Your task to perform on an android device: Clear the cart on amazon. Search for bose quietcomfort 35 on amazon, select the first entry, and add it to the cart. Image 0: 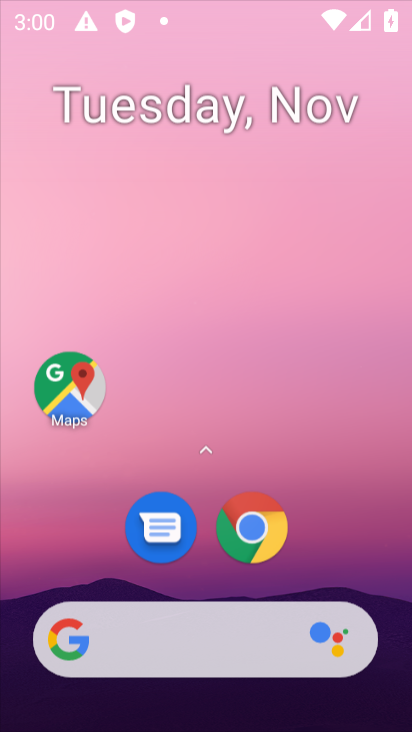
Step 0: press home button
Your task to perform on an android device: Clear the cart on amazon. Search for bose quietcomfort 35 on amazon, select the first entry, and add it to the cart. Image 1: 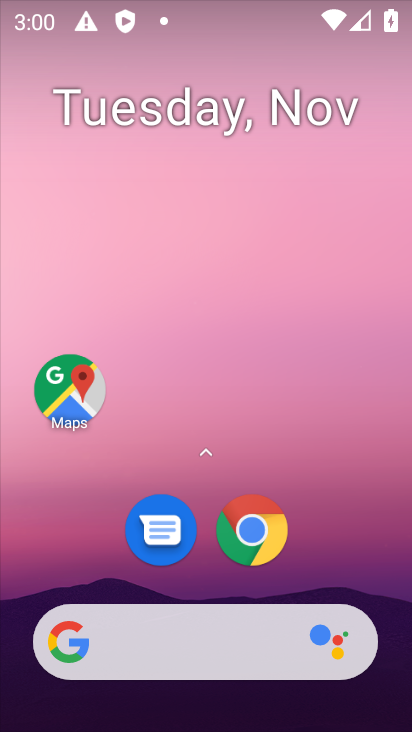
Step 1: drag from (234, 701) to (265, 134)
Your task to perform on an android device: Clear the cart on amazon. Search for bose quietcomfort 35 on amazon, select the first entry, and add it to the cart. Image 2: 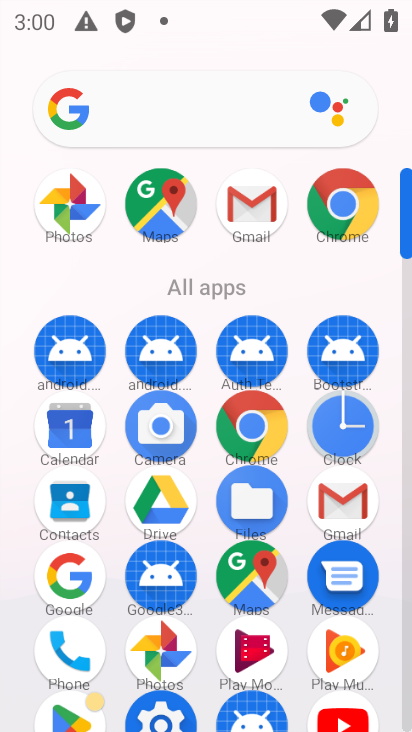
Step 2: click (261, 420)
Your task to perform on an android device: Clear the cart on amazon. Search for bose quietcomfort 35 on amazon, select the first entry, and add it to the cart. Image 3: 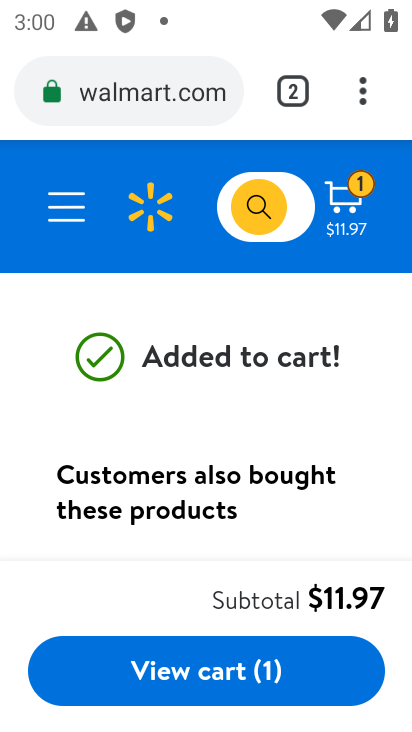
Step 3: click (172, 88)
Your task to perform on an android device: Clear the cart on amazon. Search for bose quietcomfort 35 on amazon, select the first entry, and add it to the cart. Image 4: 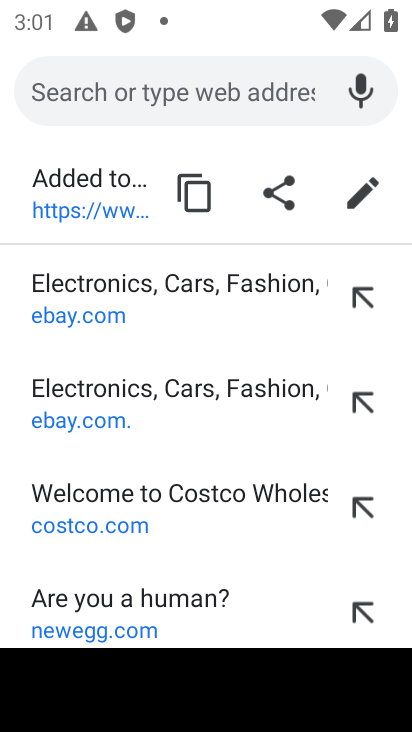
Step 4: type "amazon"
Your task to perform on an android device: Clear the cart on amazon. Search for bose quietcomfort 35 on amazon, select the first entry, and add it to the cart. Image 5: 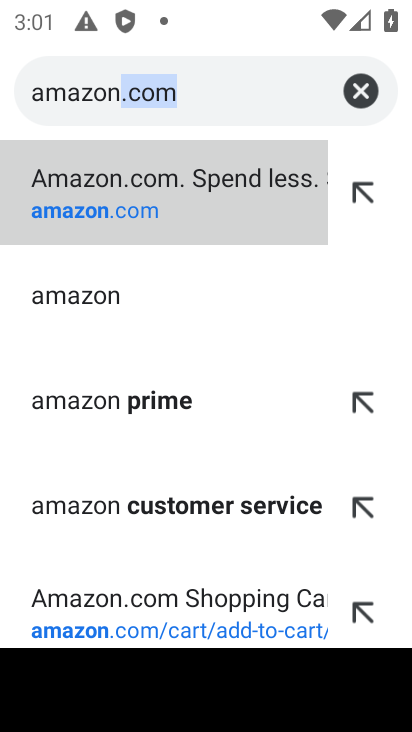
Step 5: click (66, 206)
Your task to perform on an android device: Clear the cart on amazon. Search for bose quietcomfort 35 on amazon, select the first entry, and add it to the cart. Image 6: 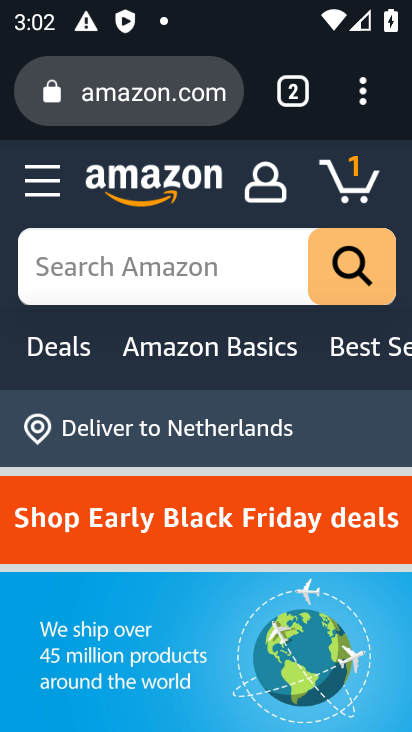
Step 6: click (112, 266)
Your task to perform on an android device: Clear the cart on amazon. Search for bose quietcomfort 35 on amazon, select the first entry, and add it to the cart. Image 7: 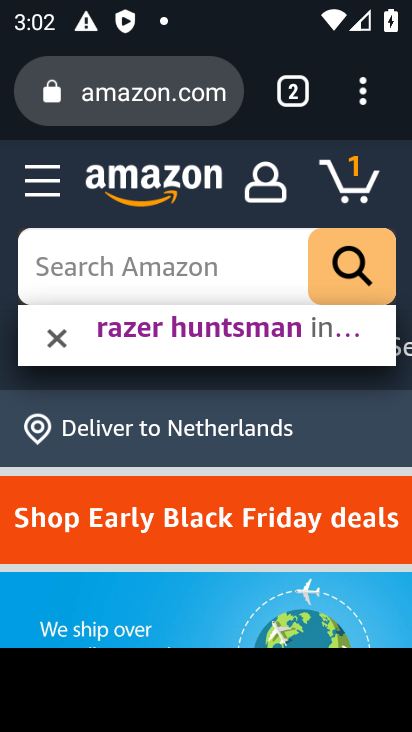
Step 7: type " bose quietcomfort 35"
Your task to perform on an android device: Clear the cart on amazon. Search for bose quietcomfort 35 on amazon, select the first entry, and add it to the cart. Image 8: 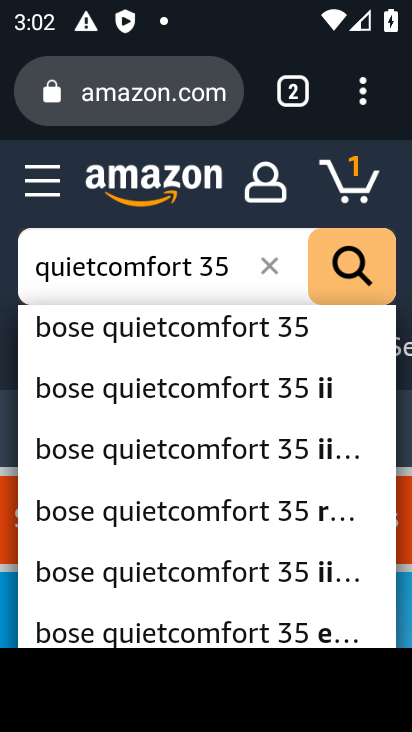
Step 8: click (191, 332)
Your task to perform on an android device: Clear the cart on amazon. Search for bose quietcomfort 35 on amazon, select the first entry, and add it to the cart. Image 9: 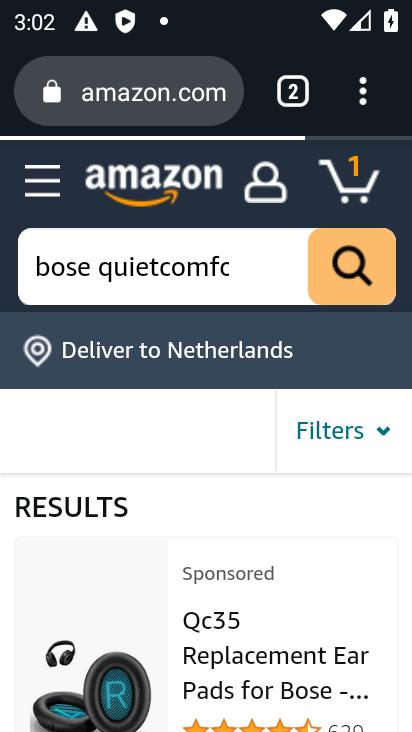
Step 9: drag from (162, 585) to (128, 285)
Your task to perform on an android device: Clear the cart on amazon. Search for bose quietcomfort 35 on amazon, select the first entry, and add it to the cart. Image 10: 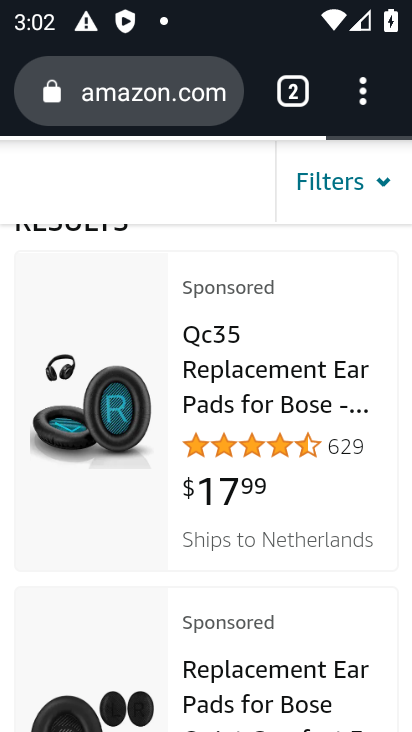
Step 10: click (140, 439)
Your task to perform on an android device: Clear the cart on amazon. Search for bose quietcomfort 35 on amazon, select the first entry, and add it to the cart. Image 11: 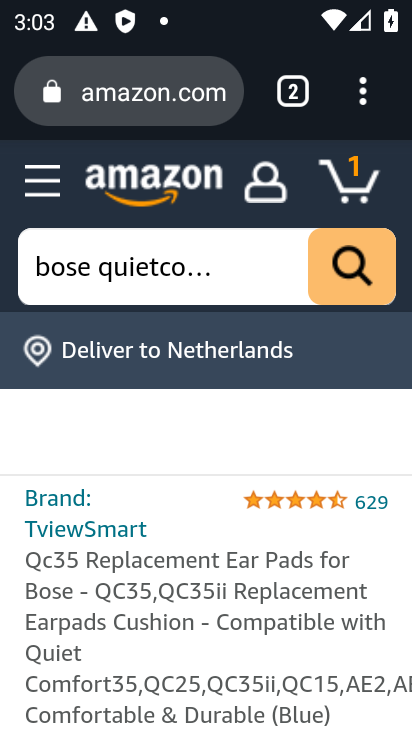
Step 11: drag from (195, 503) to (195, 156)
Your task to perform on an android device: Clear the cart on amazon. Search for bose quietcomfort 35 on amazon, select the first entry, and add it to the cart. Image 12: 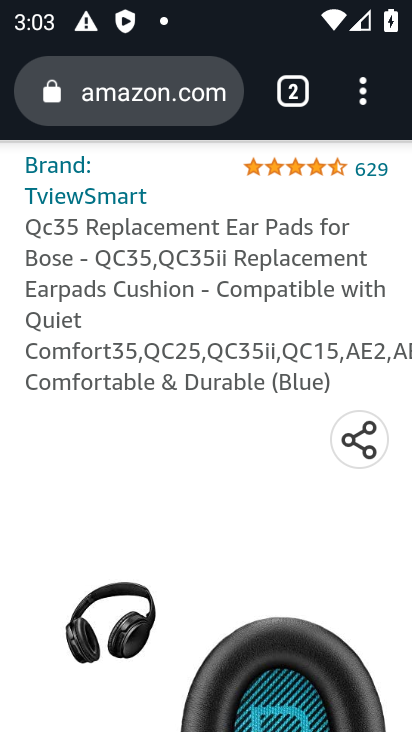
Step 12: drag from (241, 506) to (234, 155)
Your task to perform on an android device: Clear the cart on amazon. Search for bose quietcomfort 35 on amazon, select the first entry, and add it to the cart. Image 13: 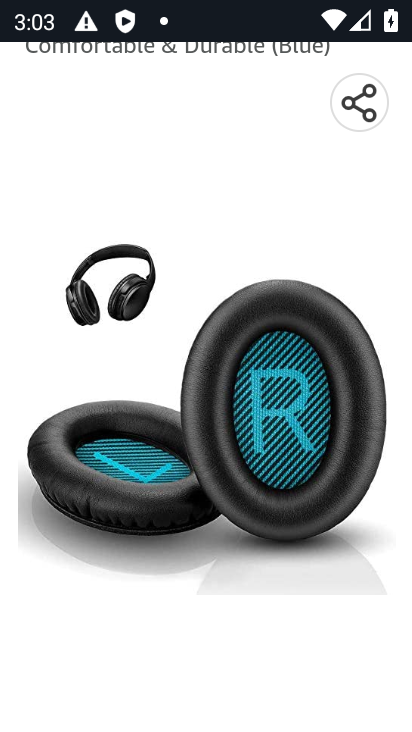
Step 13: drag from (220, 577) to (241, 146)
Your task to perform on an android device: Clear the cart on amazon. Search for bose quietcomfort 35 on amazon, select the first entry, and add it to the cart. Image 14: 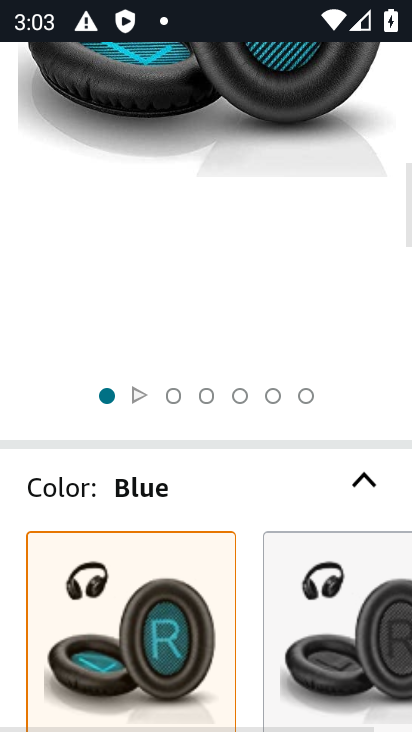
Step 14: drag from (259, 458) to (226, 89)
Your task to perform on an android device: Clear the cart on amazon. Search for bose quietcomfort 35 on amazon, select the first entry, and add it to the cart. Image 15: 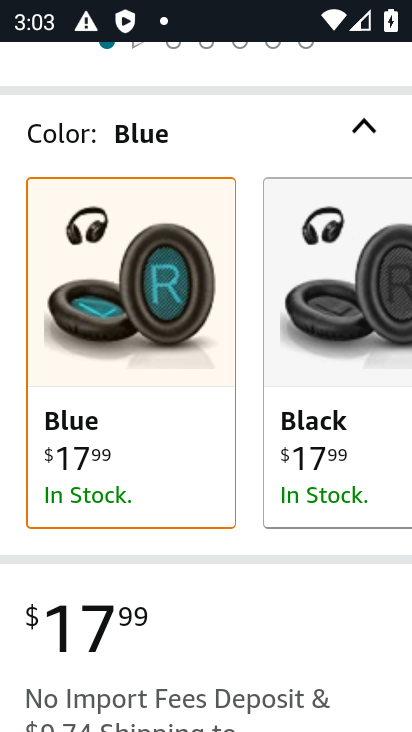
Step 15: drag from (251, 254) to (256, 124)
Your task to perform on an android device: Clear the cart on amazon. Search for bose quietcomfort 35 on amazon, select the first entry, and add it to the cart. Image 16: 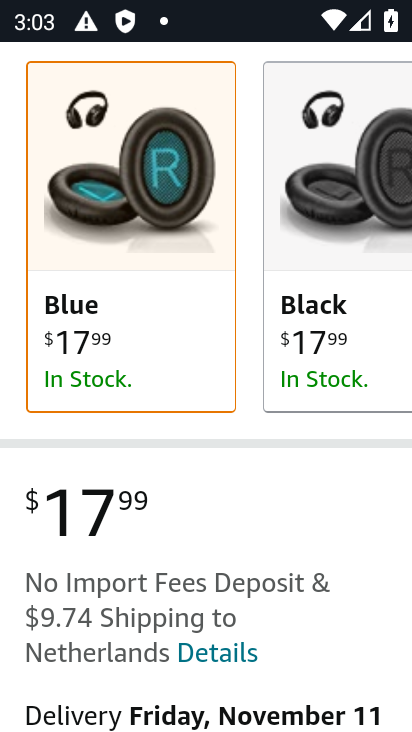
Step 16: drag from (252, 69) to (235, 730)
Your task to perform on an android device: Clear the cart on amazon. Search for bose quietcomfort 35 on amazon, select the first entry, and add it to the cart. Image 17: 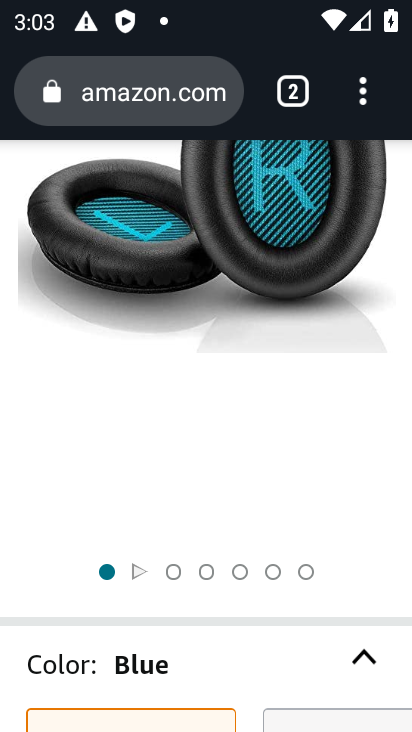
Step 17: drag from (252, 444) to (217, 166)
Your task to perform on an android device: Clear the cart on amazon. Search for bose quietcomfort 35 on amazon, select the first entry, and add it to the cart. Image 18: 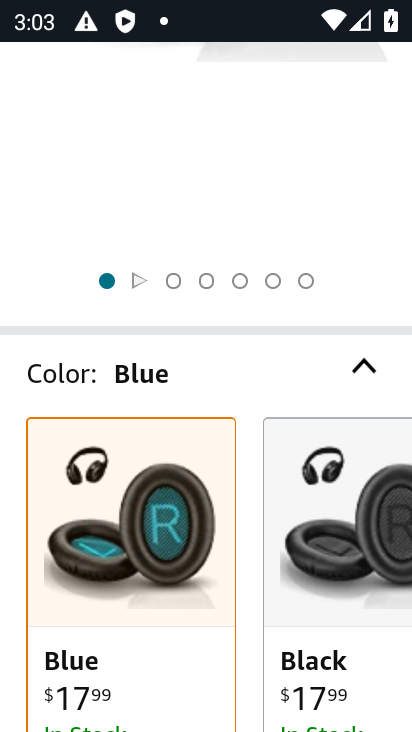
Step 18: drag from (189, 590) to (228, 159)
Your task to perform on an android device: Clear the cart on amazon. Search for bose quietcomfort 35 on amazon, select the first entry, and add it to the cart. Image 19: 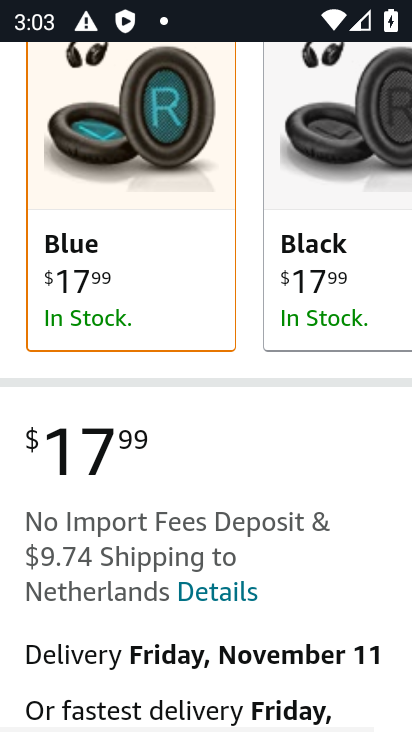
Step 19: drag from (229, 653) to (306, 199)
Your task to perform on an android device: Clear the cart on amazon. Search for bose quietcomfort 35 on amazon, select the first entry, and add it to the cart. Image 20: 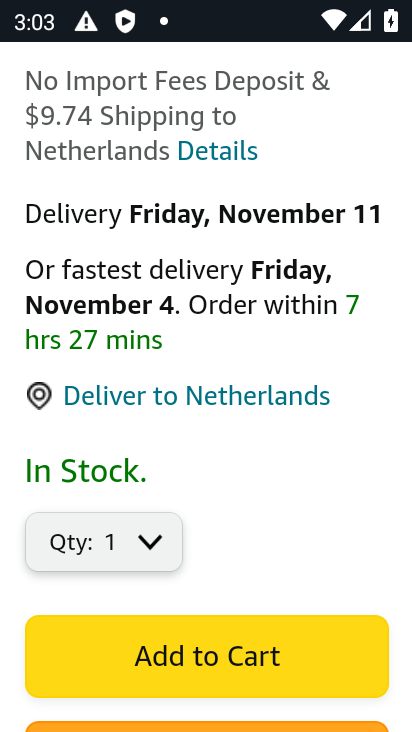
Step 20: click (206, 649)
Your task to perform on an android device: Clear the cart on amazon. Search for bose quietcomfort 35 on amazon, select the first entry, and add it to the cart. Image 21: 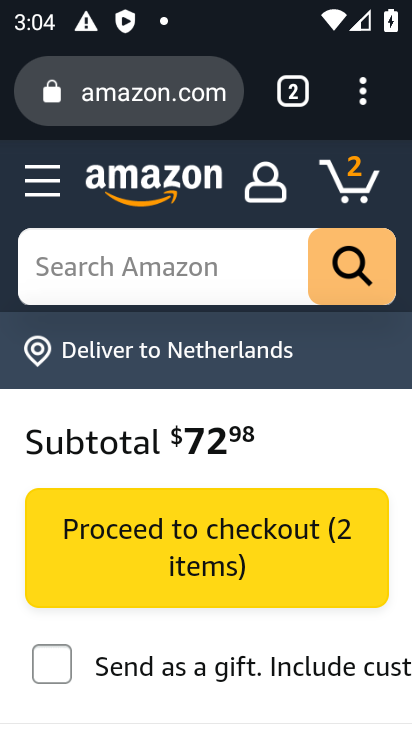
Step 21: drag from (320, 449) to (276, 48)
Your task to perform on an android device: Clear the cart on amazon. Search for bose quietcomfort 35 on amazon, select the first entry, and add it to the cart. Image 22: 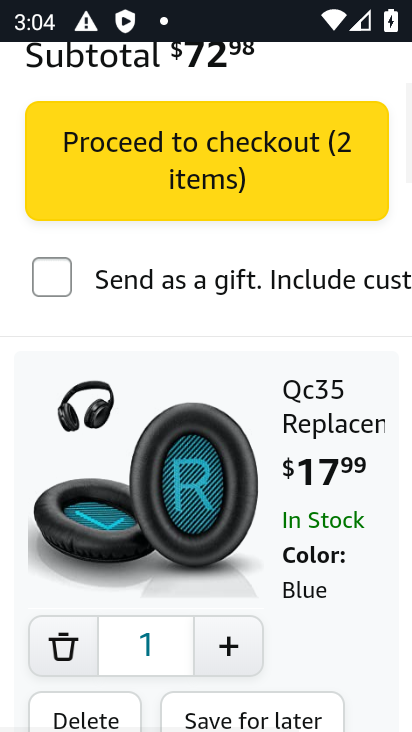
Step 22: drag from (286, 459) to (310, 212)
Your task to perform on an android device: Clear the cart on amazon. Search for bose quietcomfort 35 on amazon, select the first entry, and add it to the cart. Image 23: 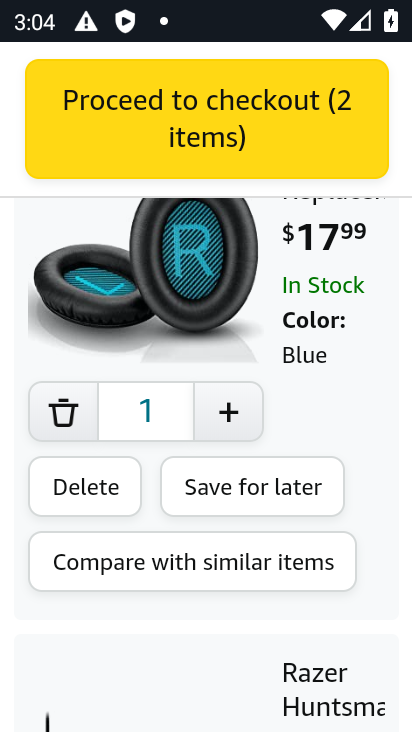
Step 23: drag from (280, 248) to (267, 616)
Your task to perform on an android device: Clear the cart on amazon. Search for bose quietcomfort 35 on amazon, select the first entry, and add it to the cart. Image 24: 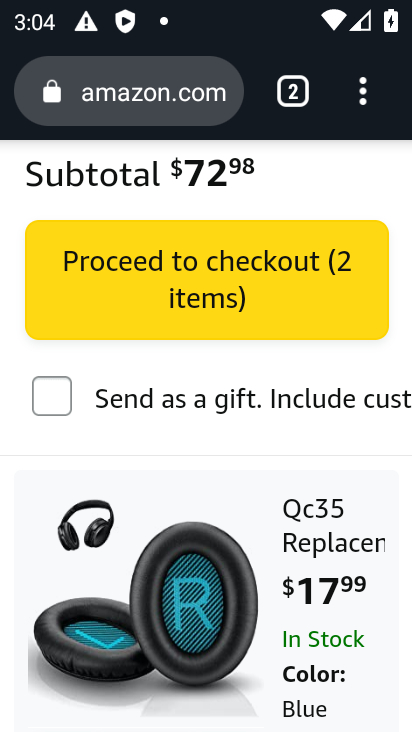
Step 24: drag from (274, 618) to (252, 199)
Your task to perform on an android device: Clear the cart on amazon. Search for bose quietcomfort 35 on amazon, select the first entry, and add it to the cart. Image 25: 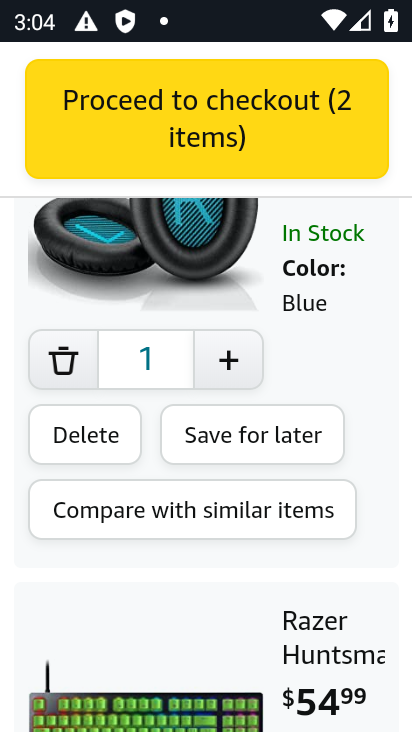
Step 25: click (58, 355)
Your task to perform on an android device: Clear the cart on amazon. Search for bose quietcomfort 35 on amazon, select the first entry, and add it to the cart. Image 26: 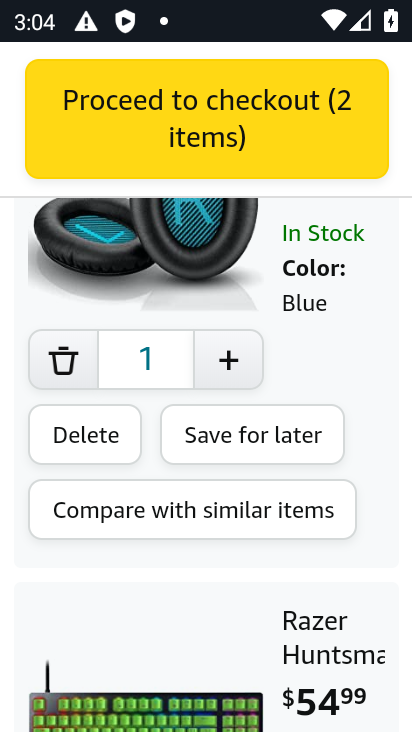
Step 26: click (58, 355)
Your task to perform on an android device: Clear the cart on amazon. Search for bose quietcomfort 35 on amazon, select the first entry, and add it to the cart. Image 27: 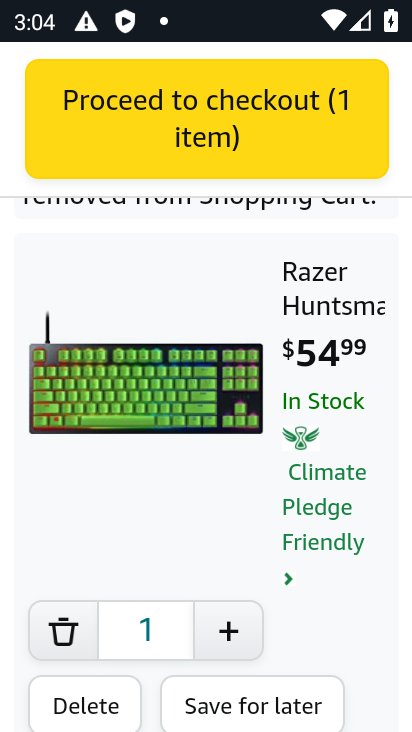
Step 27: click (69, 630)
Your task to perform on an android device: Clear the cart on amazon. Search for bose quietcomfort 35 on amazon, select the first entry, and add it to the cart. Image 28: 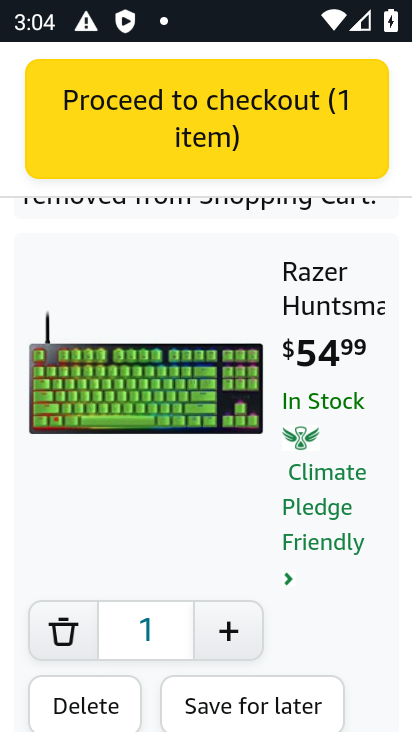
Step 28: click (69, 630)
Your task to perform on an android device: Clear the cart on amazon. Search for bose quietcomfort 35 on amazon, select the first entry, and add it to the cart. Image 29: 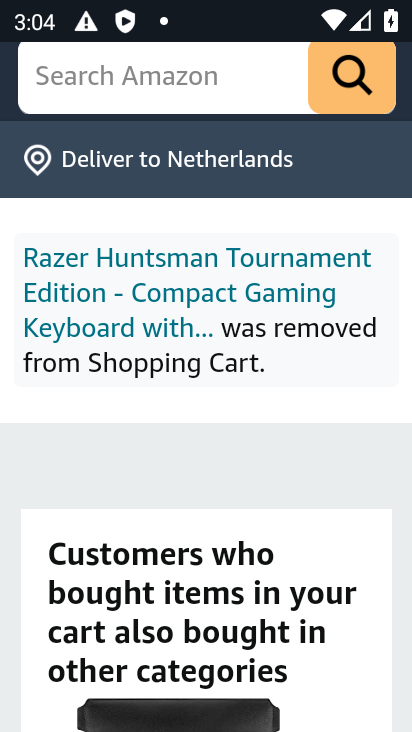
Step 29: click (81, 708)
Your task to perform on an android device: Clear the cart on amazon. Search for bose quietcomfort 35 on amazon, select the first entry, and add it to the cart. Image 30: 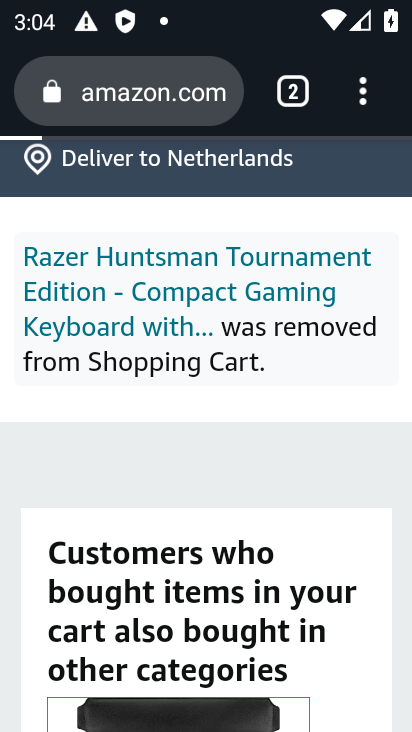
Step 30: drag from (209, 612) to (246, 222)
Your task to perform on an android device: Clear the cart on amazon. Search for bose quietcomfort 35 on amazon, select the first entry, and add it to the cart. Image 31: 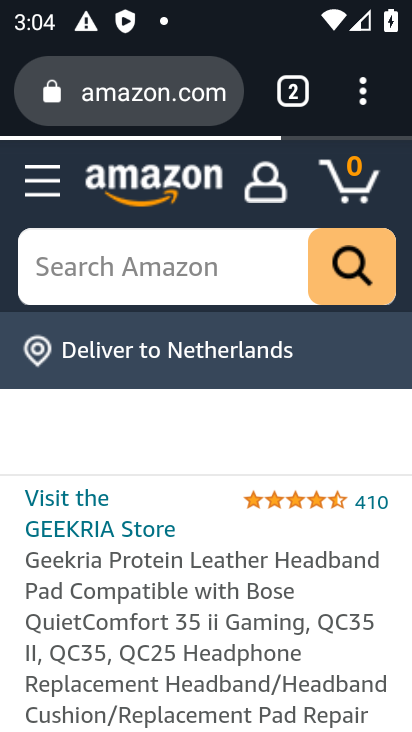
Step 31: click (349, 185)
Your task to perform on an android device: Clear the cart on amazon. Search for bose quietcomfort 35 on amazon, select the first entry, and add it to the cart. Image 32: 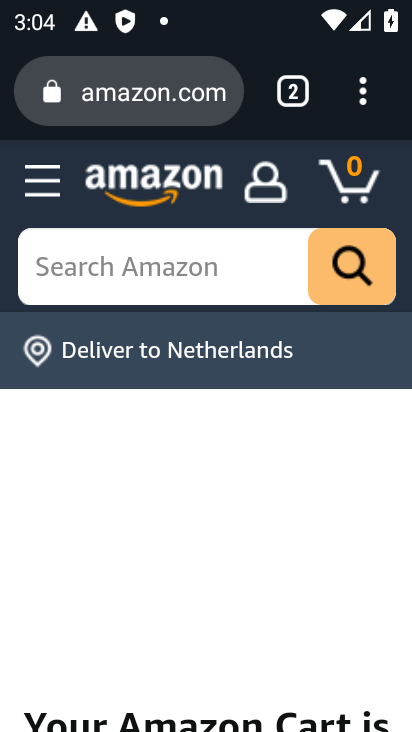
Step 32: task complete